Your task to perform on an android device: What's on my calendar tomorrow? Image 0: 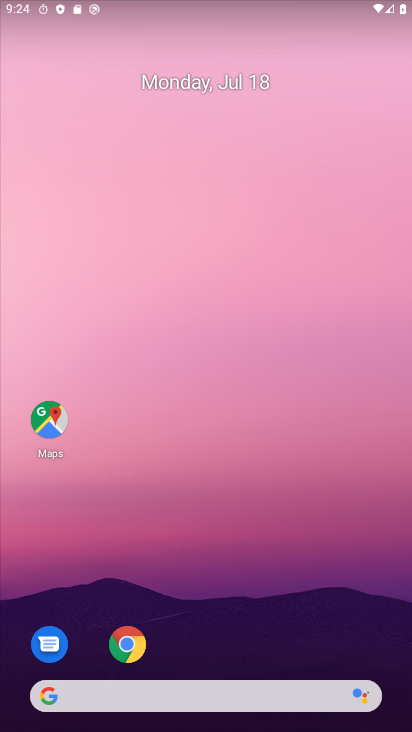
Step 0: press home button
Your task to perform on an android device: What's on my calendar tomorrow? Image 1: 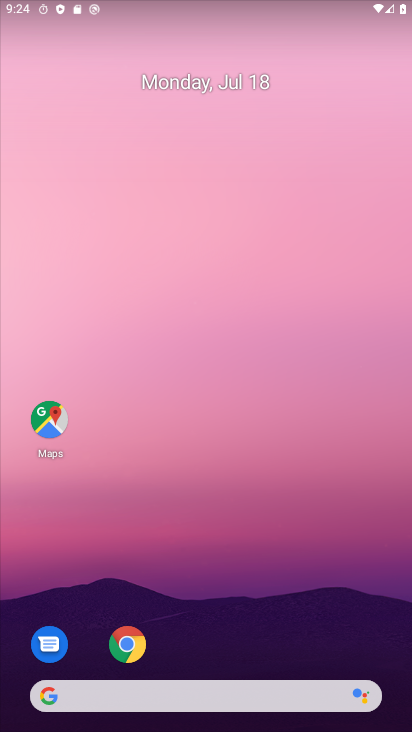
Step 1: drag from (206, 657) to (231, 6)
Your task to perform on an android device: What's on my calendar tomorrow? Image 2: 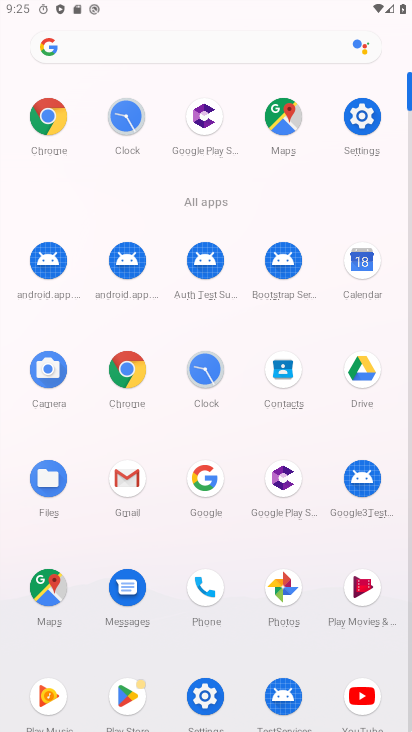
Step 2: click (359, 258)
Your task to perform on an android device: What's on my calendar tomorrow? Image 3: 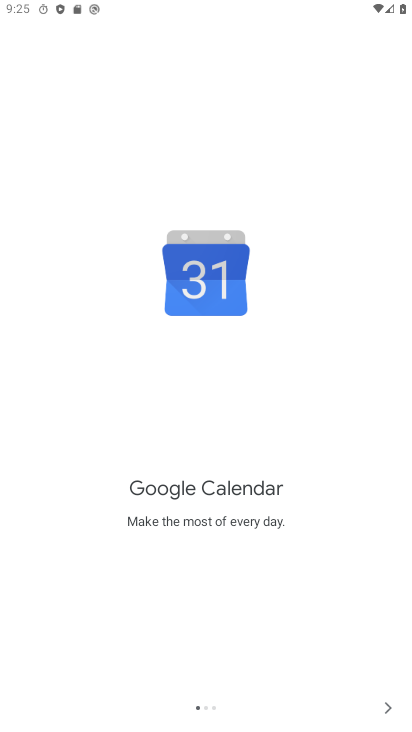
Step 3: click (378, 698)
Your task to perform on an android device: What's on my calendar tomorrow? Image 4: 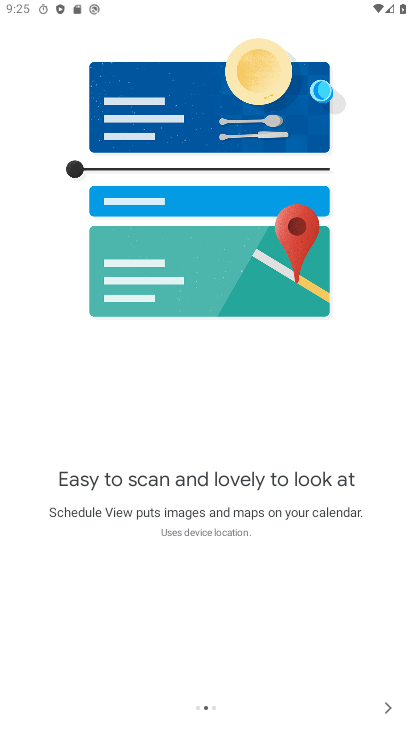
Step 4: click (384, 705)
Your task to perform on an android device: What's on my calendar tomorrow? Image 5: 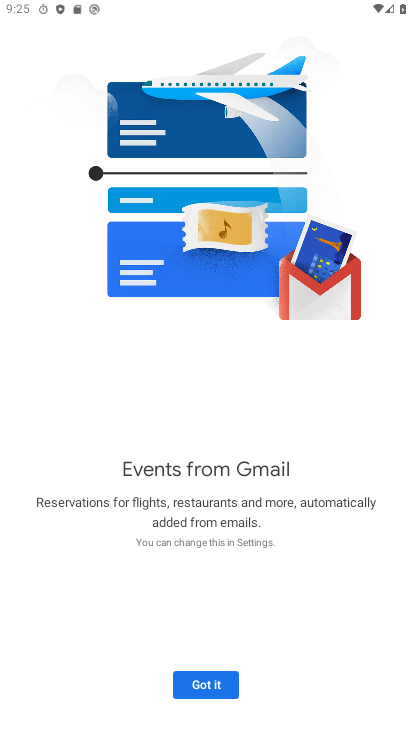
Step 5: click (207, 681)
Your task to perform on an android device: What's on my calendar tomorrow? Image 6: 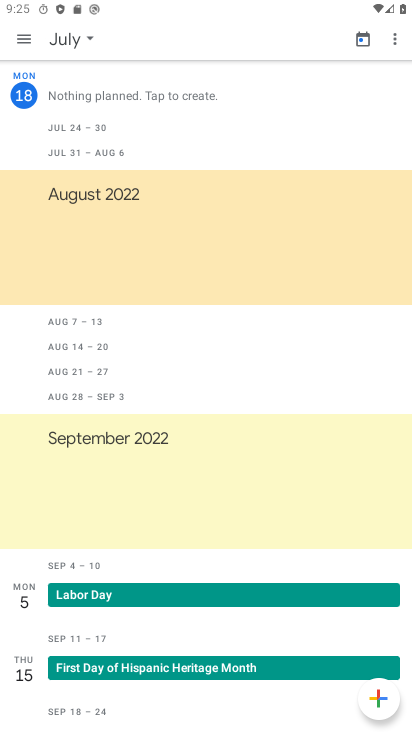
Step 6: click (25, 97)
Your task to perform on an android device: What's on my calendar tomorrow? Image 7: 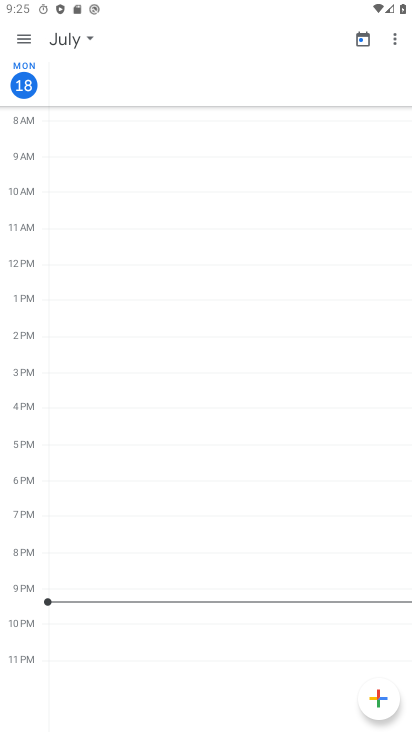
Step 7: click (26, 95)
Your task to perform on an android device: What's on my calendar tomorrow? Image 8: 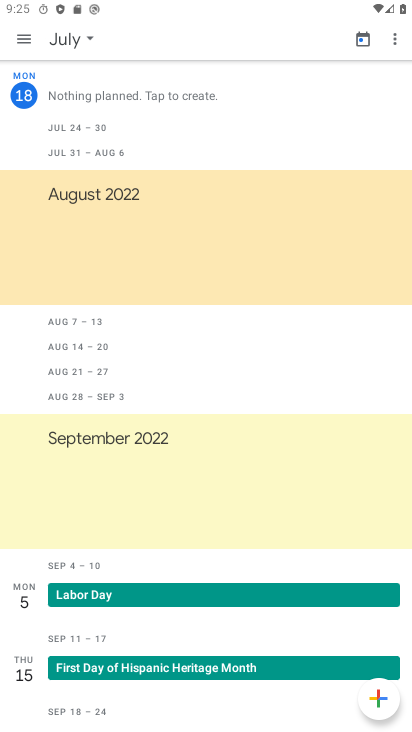
Step 8: click (88, 34)
Your task to perform on an android device: What's on my calendar tomorrow? Image 9: 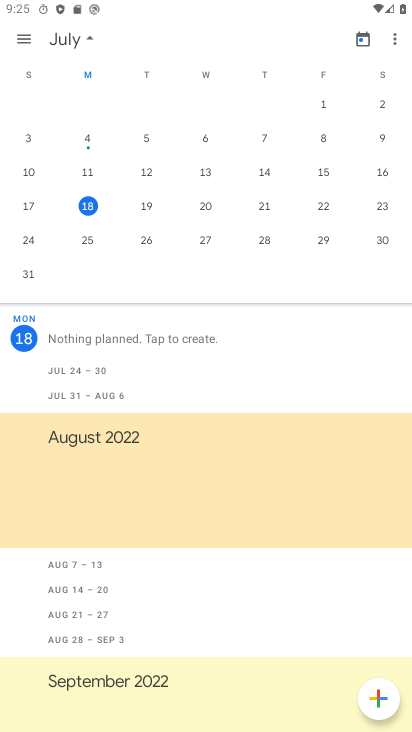
Step 9: click (149, 204)
Your task to perform on an android device: What's on my calendar tomorrow? Image 10: 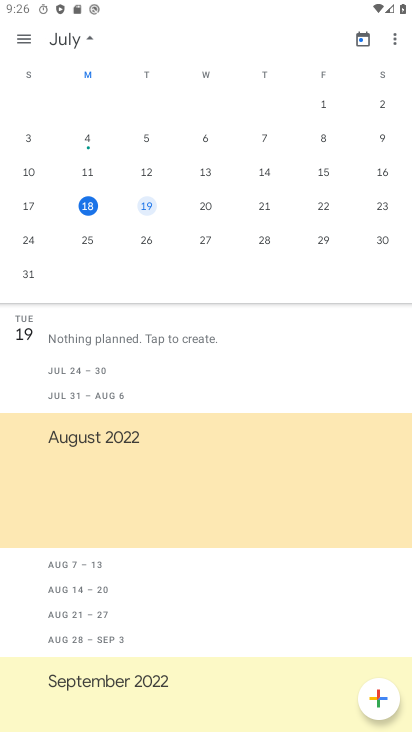
Step 10: click (23, 324)
Your task to perform on an android device: What's on my calendar tomorrow? Image 11: 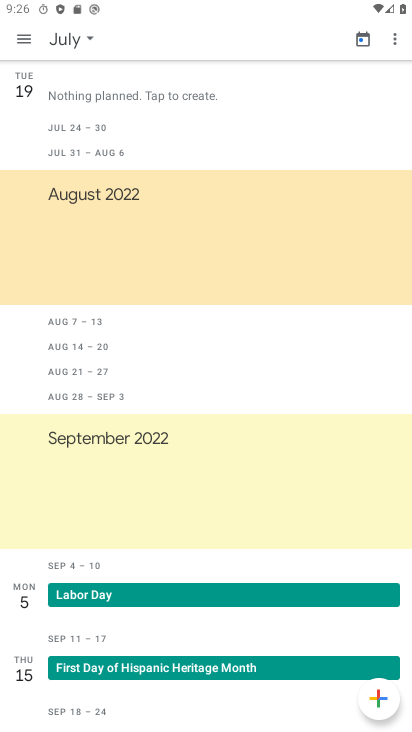
Step 11: click (26, 86)
Your task to perform on an android device: What's on my calendar tomorrow? Image 12: 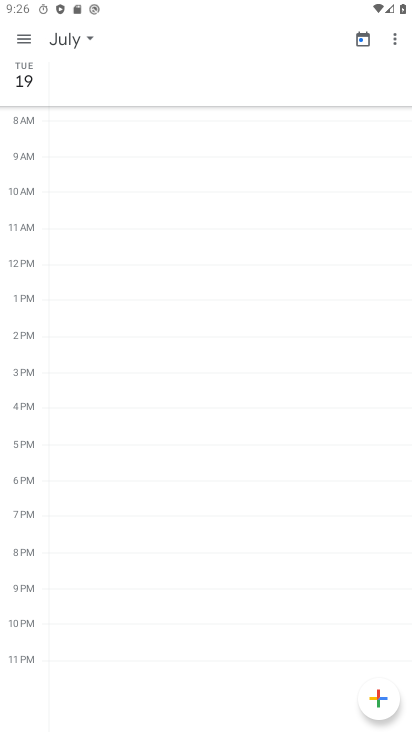
Step 12: task complete